Your task to perform on an android device: toggle sleep mode Image 0: 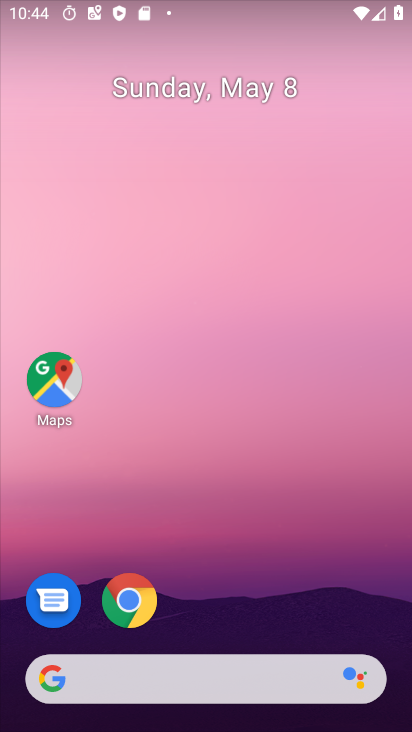
Step 0: drag from (59, 614) to (339, 265)
Your task to perform on an android device: toggle sleep mode Image 1: 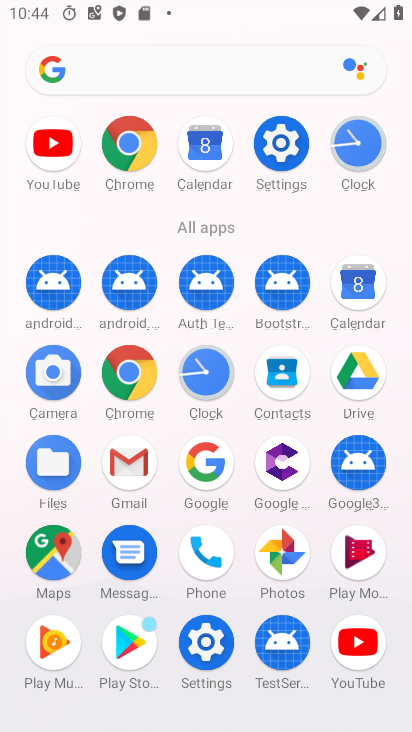
Step 1: click (293, 168)
Your task to perform on an android device: toggle sleep mode Image 2: 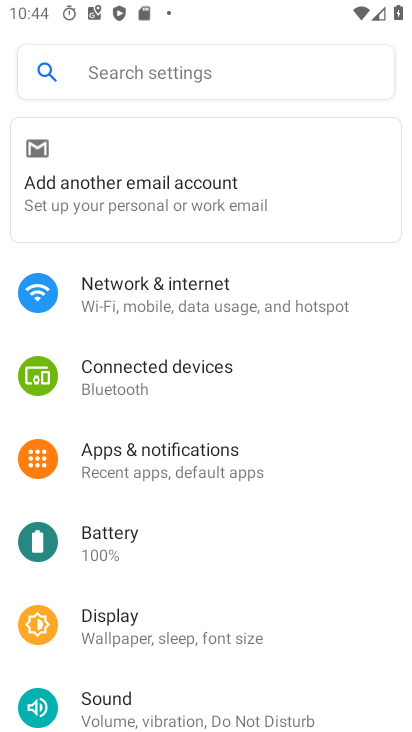
Step 2: task complete